Your task to perform on an android device: manage bookmarks in the chrome app Image 0: 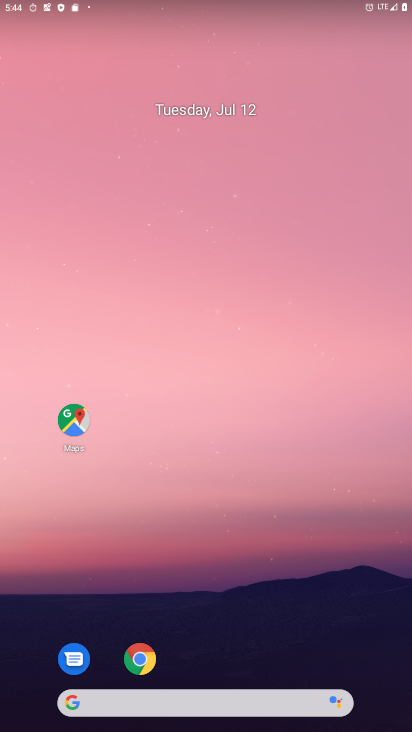
Step 0: click (142, 661)
Your task to perform on an android device: manage bookmarks in the chrome app Image 1: 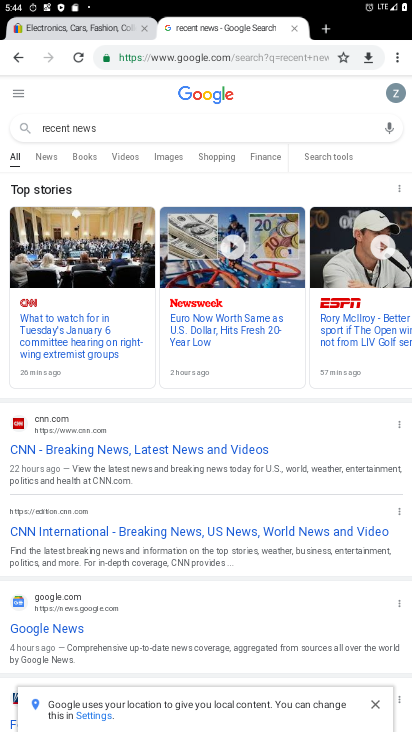
Step 1: click (400, 53)
Your task to perform on an android device: manage bookmarks in the chrome app Image 2: 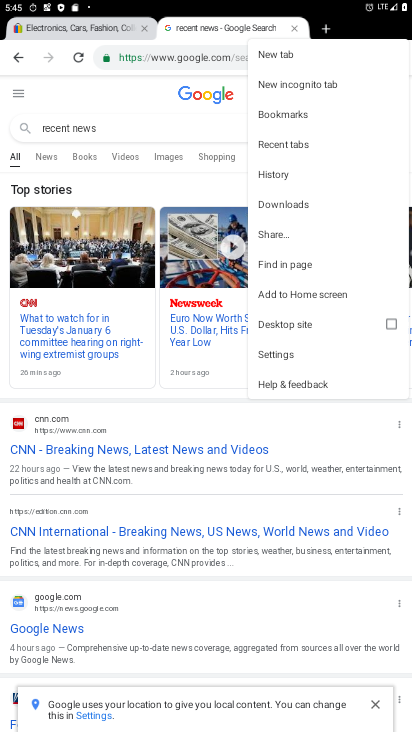
Step 2: click (288, 115)
Your task to perform on an android device: manage bookmarks in the chrome app Image 3: 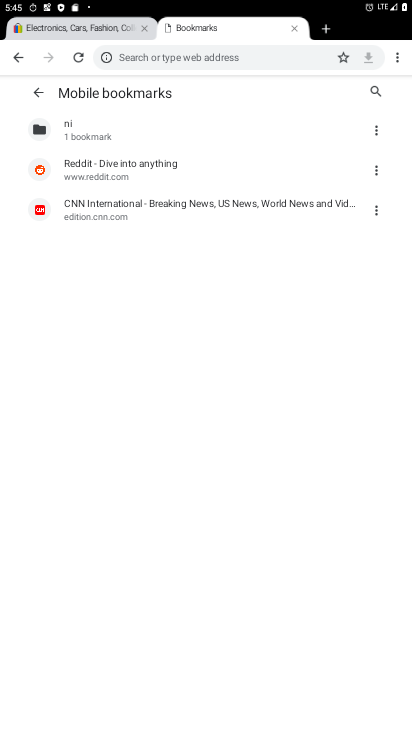
Step 3: click (374, 138)
Your task to perform on an android device: manage bookmarks in the chrome app Image 4: 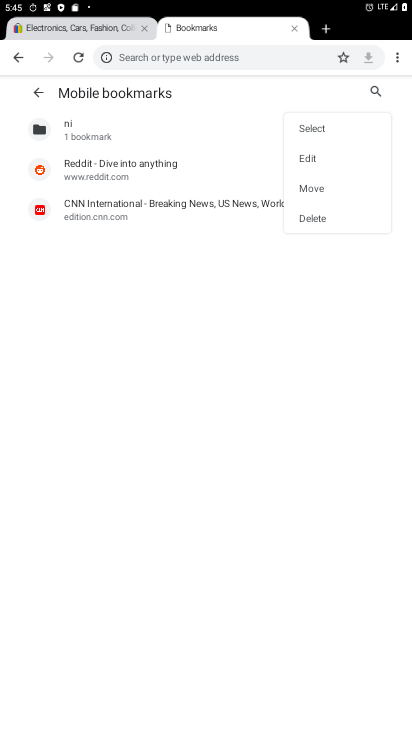
Step 4: click (327, 216)
Your task to perform on an android device: manage bookmarks in the chrome app Image 5: 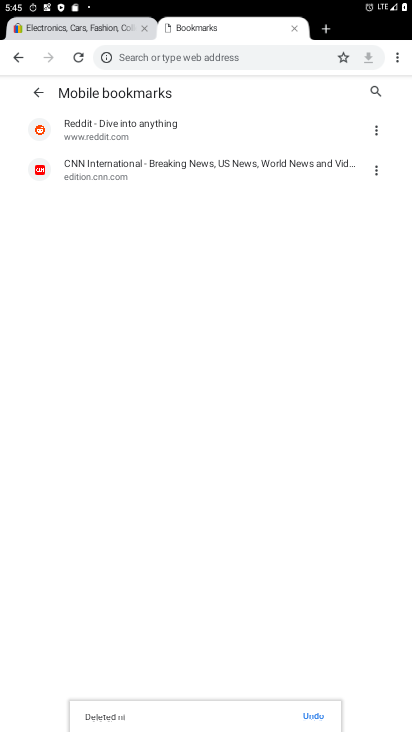
Step 5: task complete